Your task to perform on an android device: move an email to a new category in the gmail app Image 0: 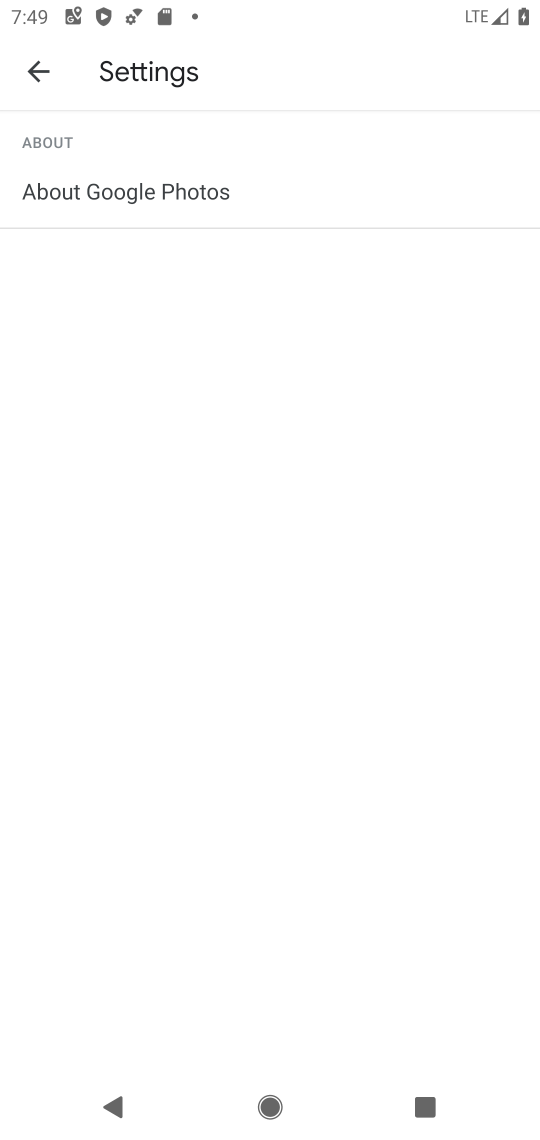
Step 0: press home button
Your task to perform on an android device: move an email to a new category in the gmail app Image 1: 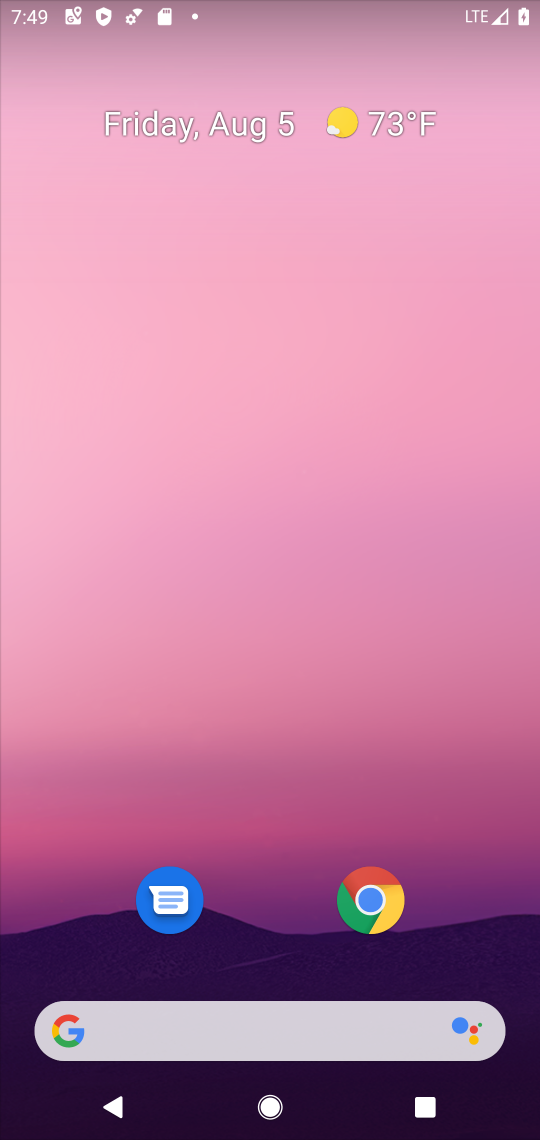
Step 1: drag from (211, 965) to (290, 265)
Your task to perform on an android device: move an email to a new category in the gmail app Image 2: 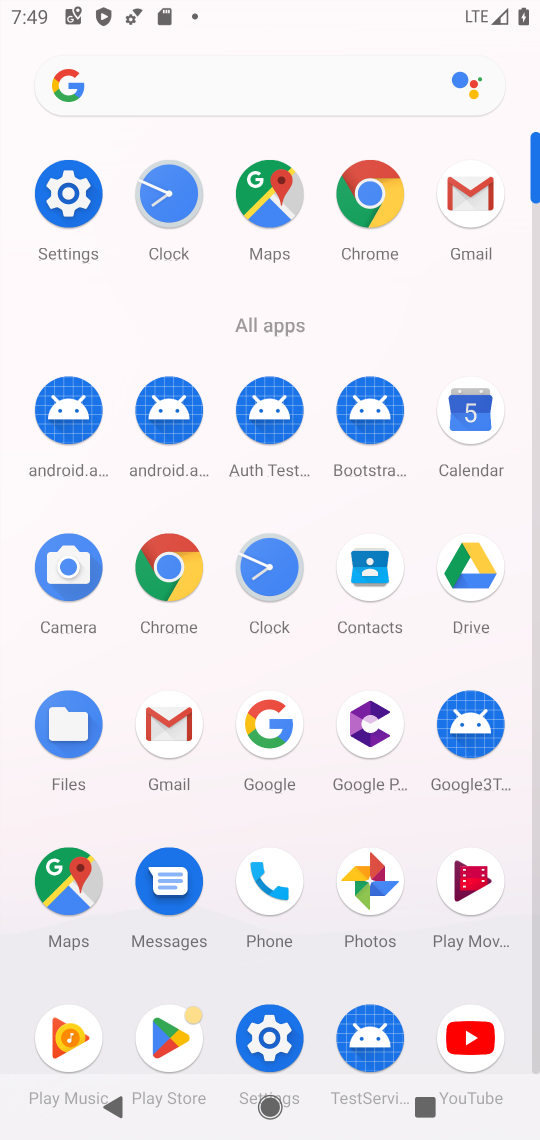
Step 2: click (176, 719)
Your task to perform on an android device: move an email to a new category in the gmail app Image 3: 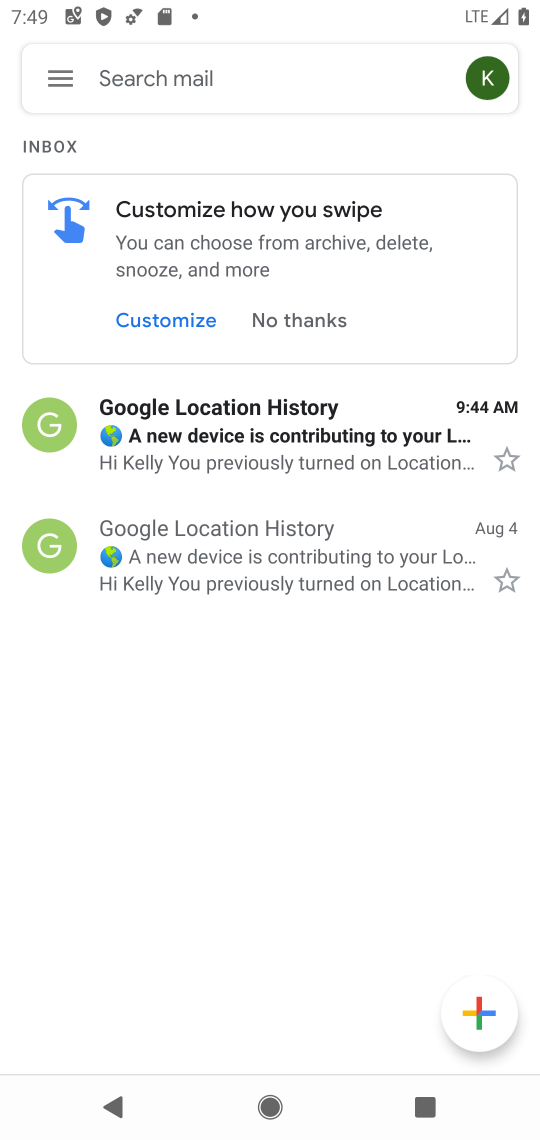
Step 3: drag from (200, 412) to (261, 412)
Your task to perform on an android device: move an email to a new category in the gmail app Image 4: 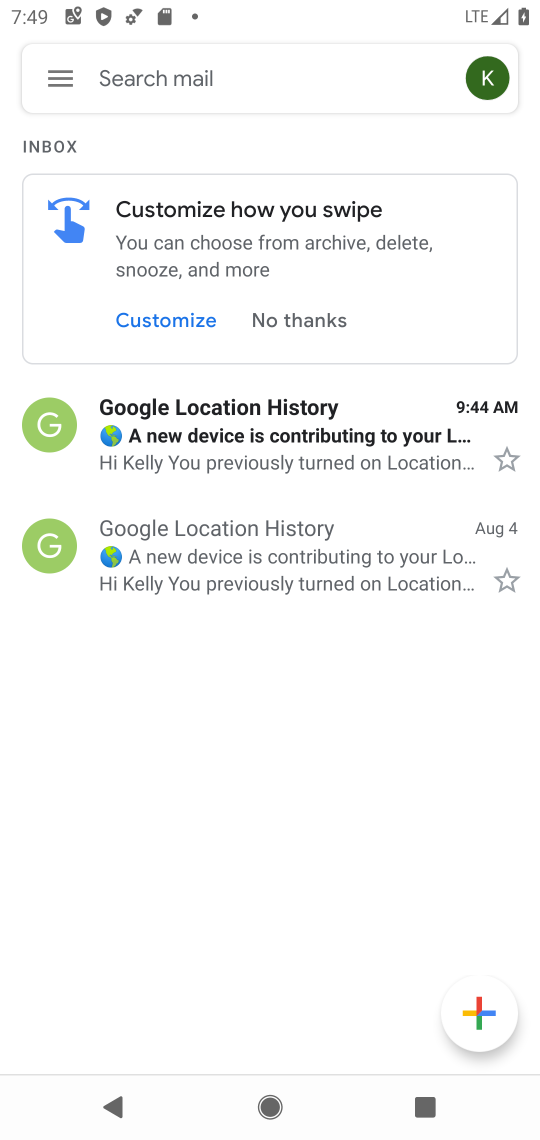
Step 4: click (325, 450)
Your task to perform on an android device: move an email to a new category in the gmail app Image 5: 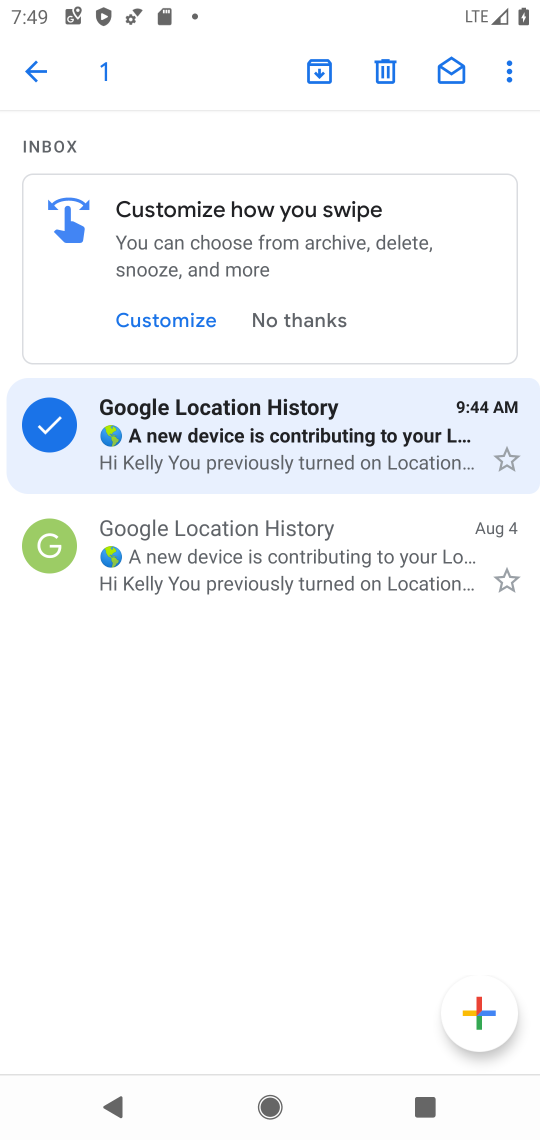
Step 5: click (502, 64)
Your task to perform on an android device: move an email to a new category in the gmail app Image 6: 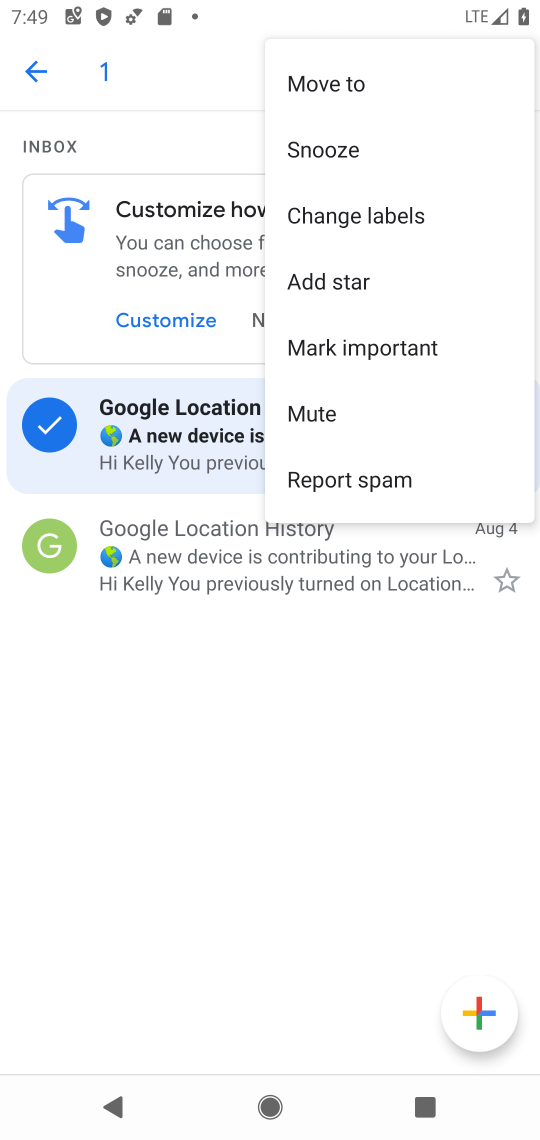
Step 6: click (300, 83)
Your task to perform on an android device: move an email to a new category in the gmail app Image 7: 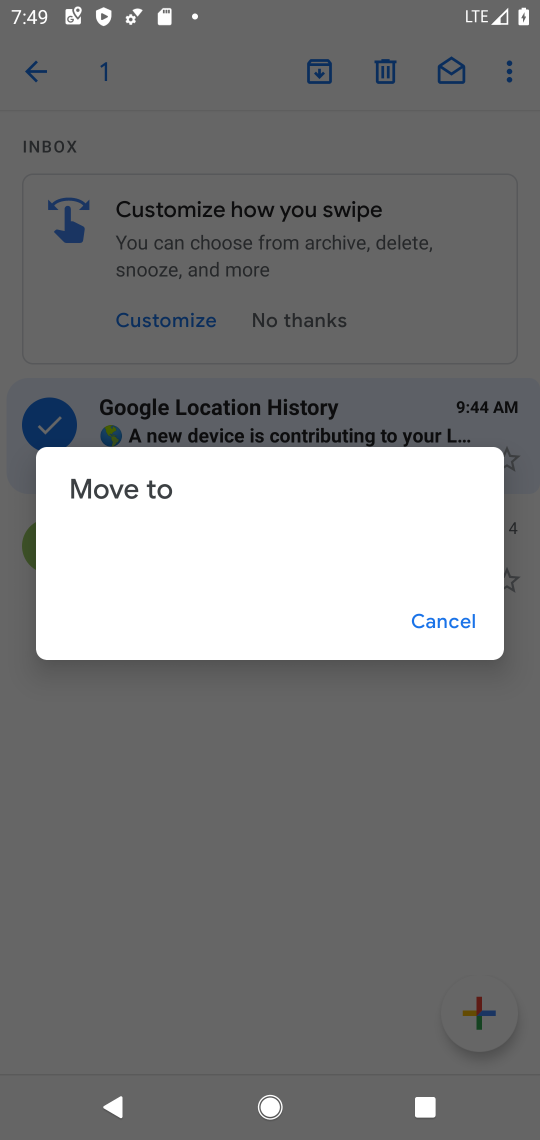
Step 7: click (449, 627)
Your task to perform on an android device: move an email to a new category in the gmail app Image 8: 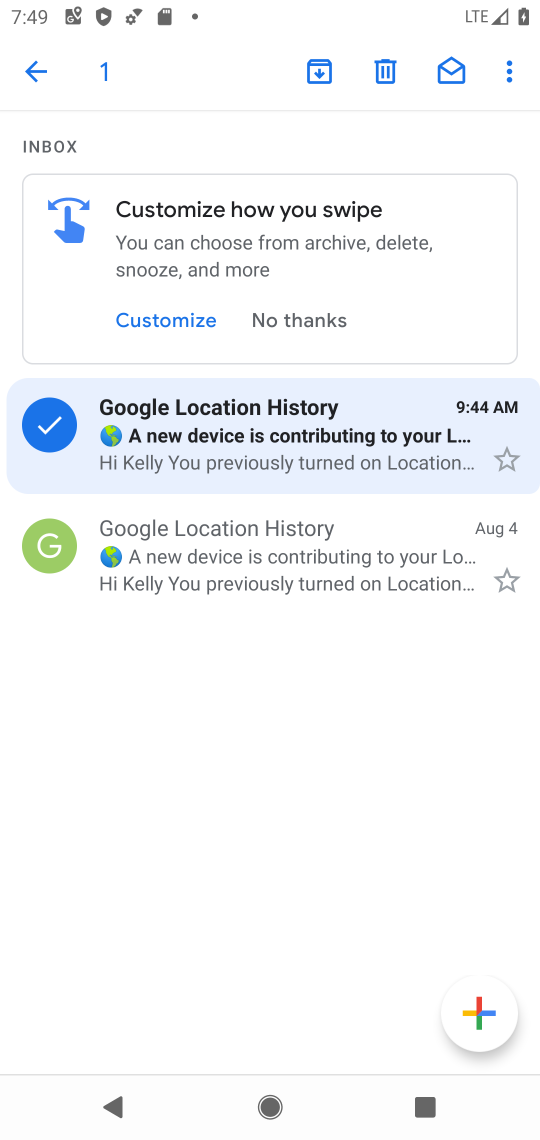
Step 8: click (199, 399)
Your task to perform on an android device: move an email to a new category in the gmail app Image 9: 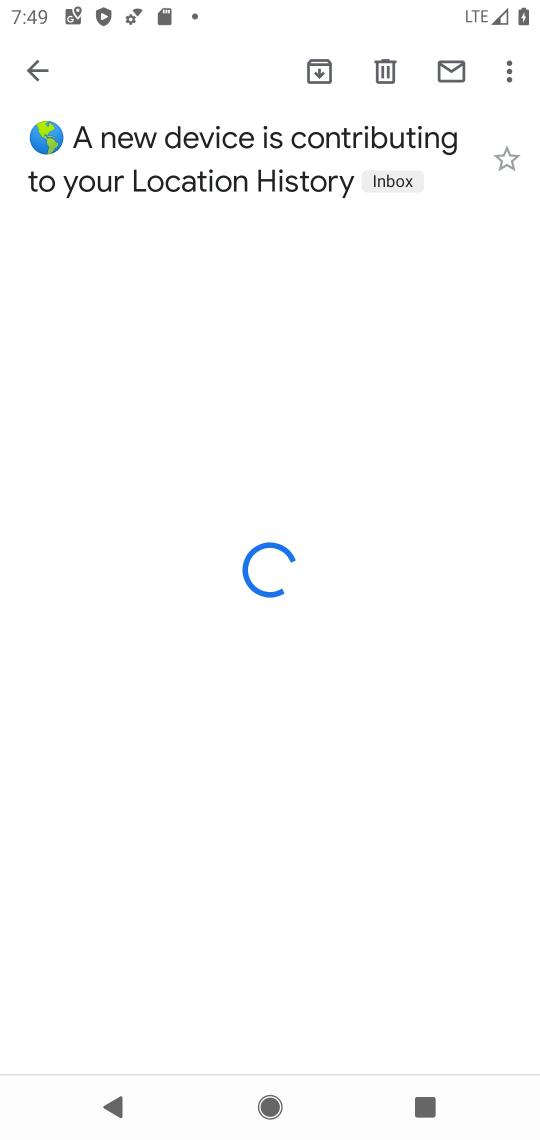
Step 9: click (514, 80)
Your task to perform on an android device: move an email to a new category in the gmail app Image 10: 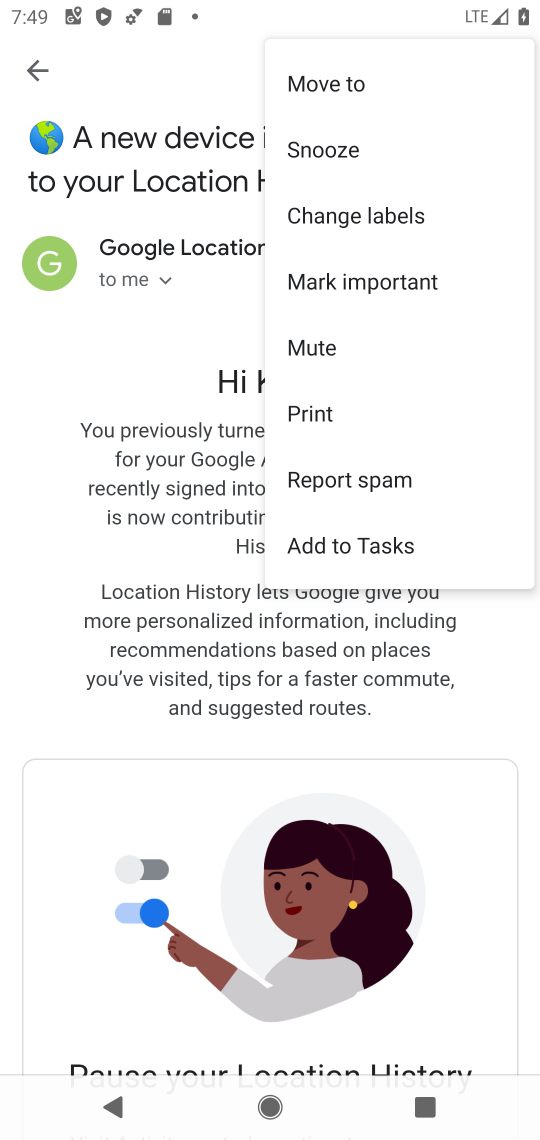
Step 10: drag from (422, 89) to (445, 408)
Your task to perform on an android device: move an email to a new category in the gmail app Image 11: 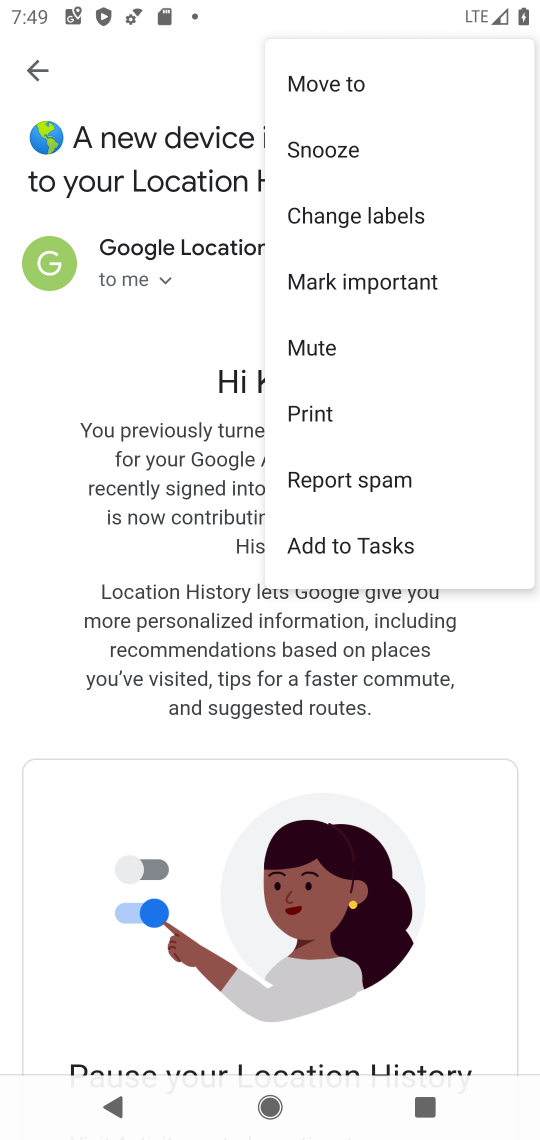
Step 11: click (333, 102)
Your task to perform on an android device: move an email to a new category in the gmail app Image 12: 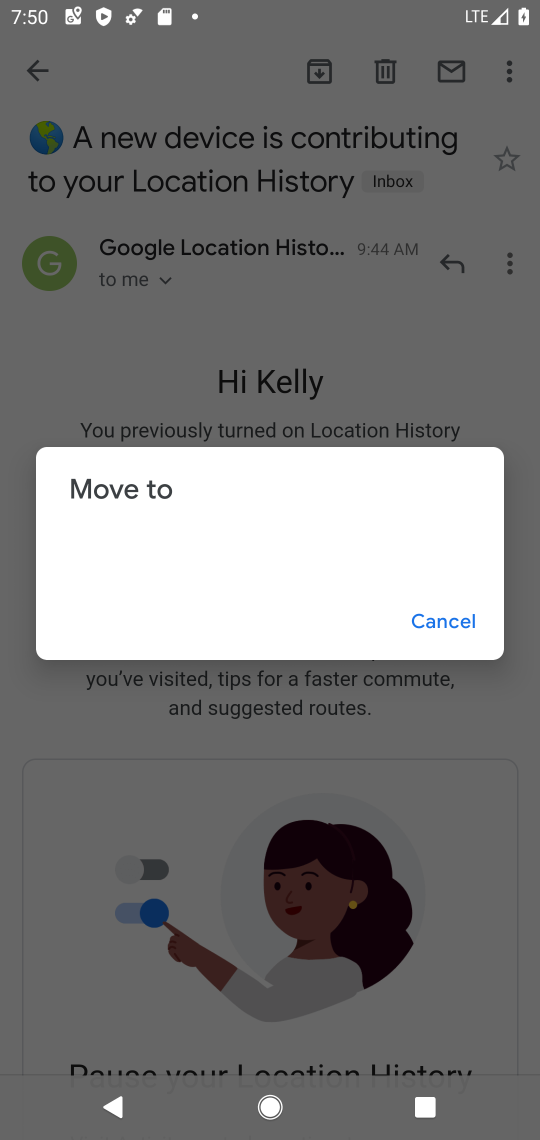
Step 12: click (217, 512)
Your task to perform on an android device: move an email to a new category in the gmail app Image 13: 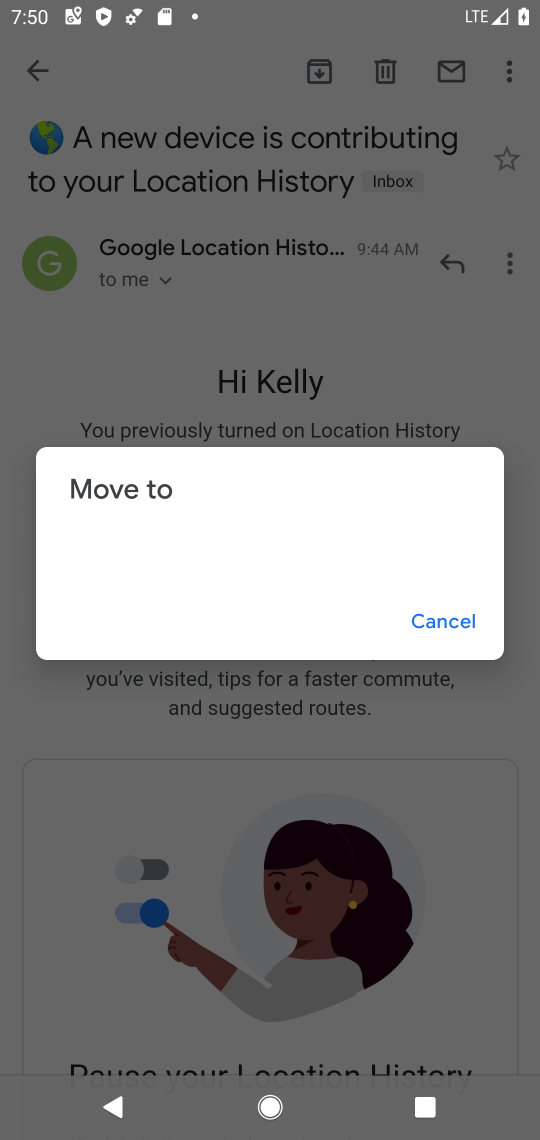
Step 13: click (216, 538)
Your task to perform on an android device: move an email to a new category in the gmail app Image 14: 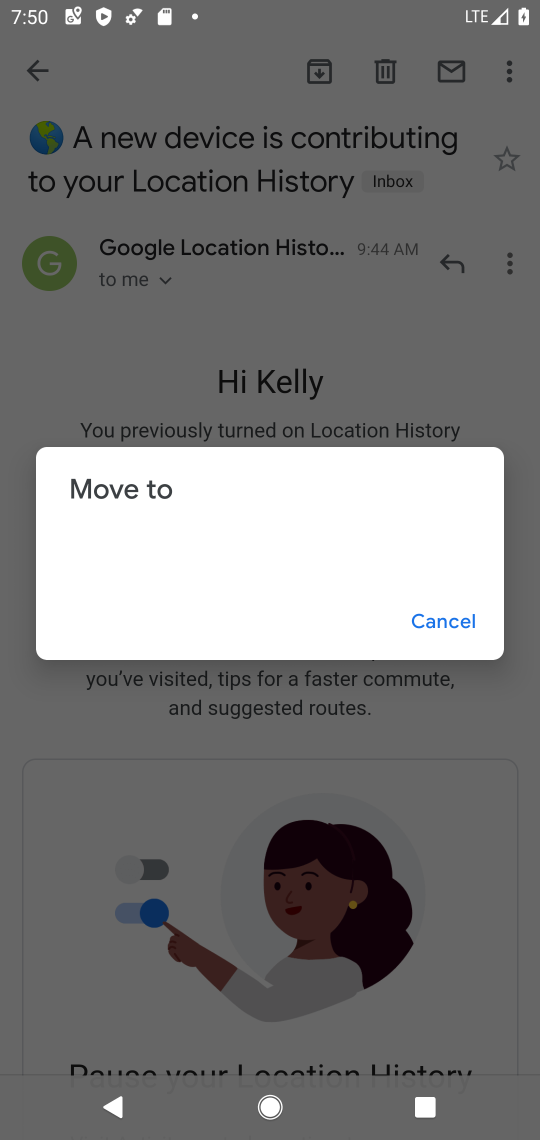
Step 14: click (404, 618)
Your task to perform on an android device: move an email to a new category in the gmail app Image 15: 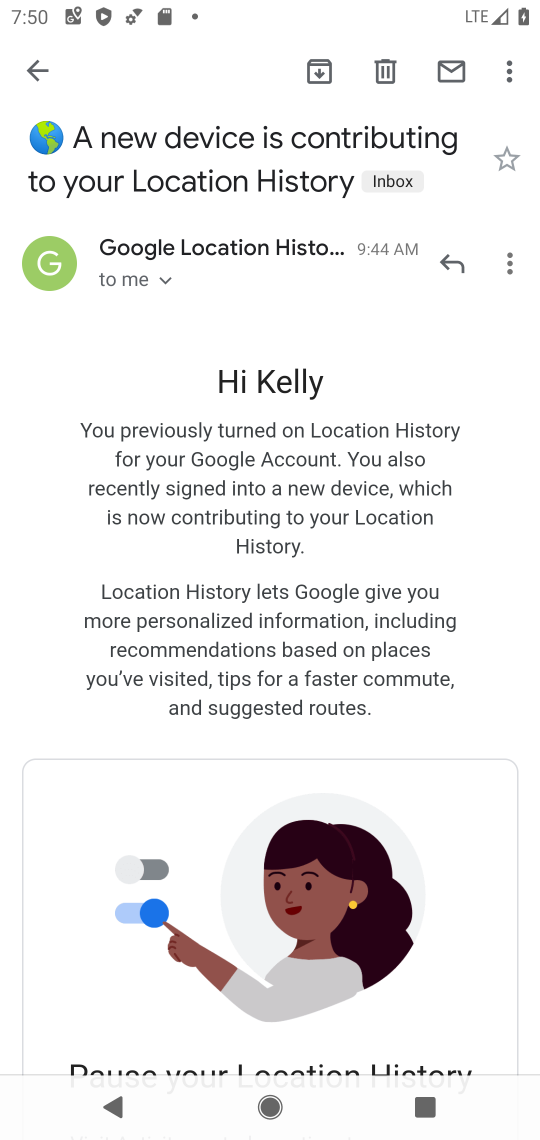
Step 15: task complete